Your task to perform on an android device: turn on improve location accuracy Image 0: 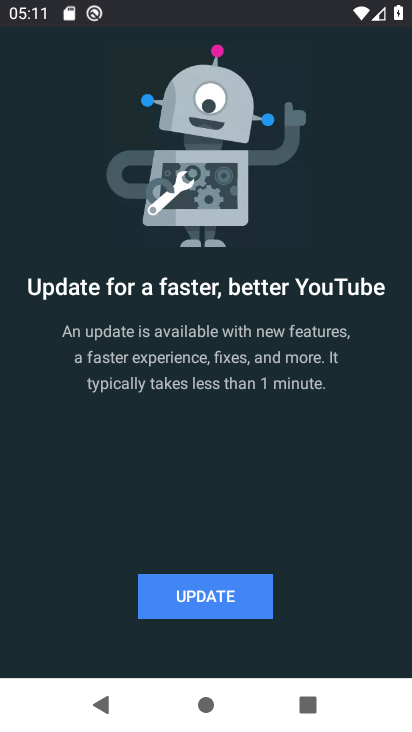
Step 0: press back button
Your task to perform on an android device: turn on improve location accuracy Image 1: 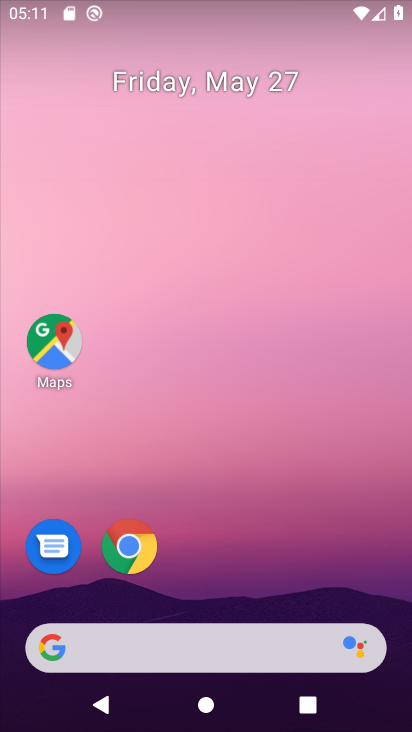
Step 1: drag from (294, 527) to (51, 4)
Your task to perform on an android device: turn on improve location accuracy Image 2: 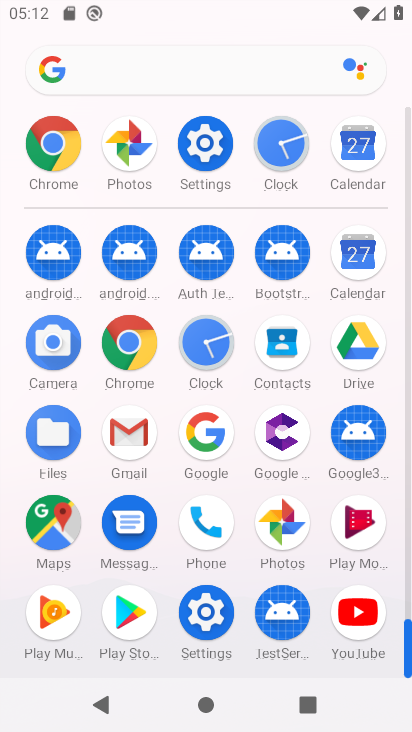
Step 2: click (202, 606)
Your task to perform on an android device: turn on improve location accuracy Image 3: 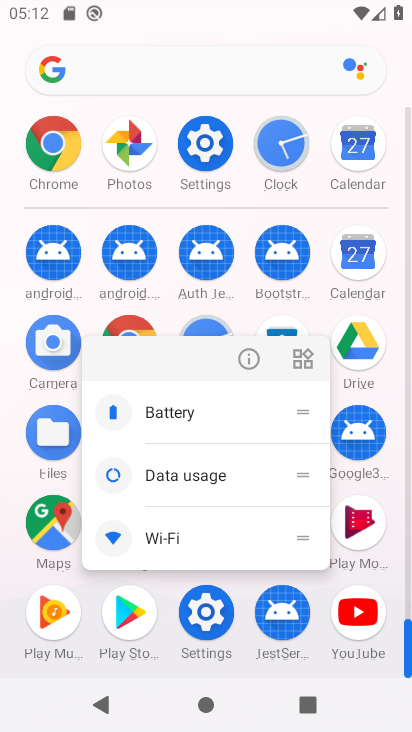
Step 3: click (202, 606)
Your task to perform on an android device: turn on improve location accuracy Image 4: 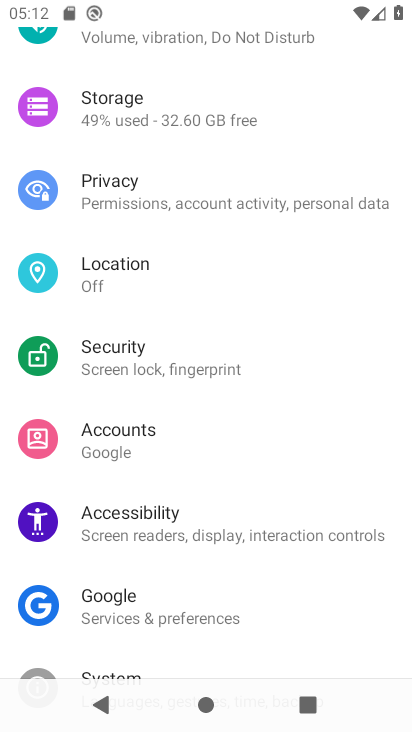
Step 4: drag from (251, 481) to (231, 106)
Your task to perform on an android device: turn on improve location accuracy Image 5: 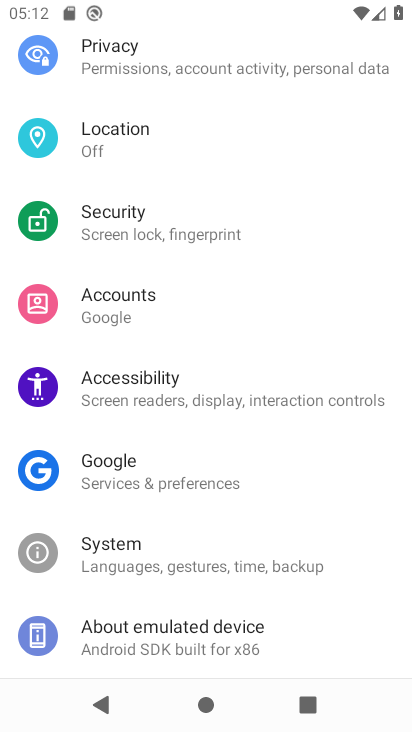
Step 5: drag from (181, 198) to (194, 423)
Your task to perform on an android device: turn on improve location accuracy Image 6: 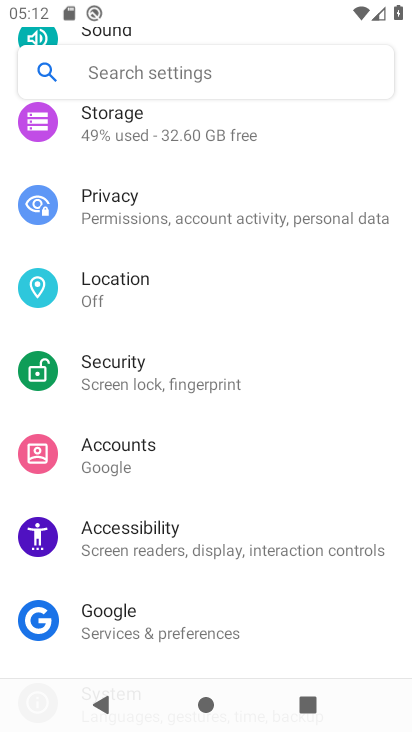
Step 6: click (128, 267)
Your task to perform on an android device: turn on improve location accuracy Image 7: 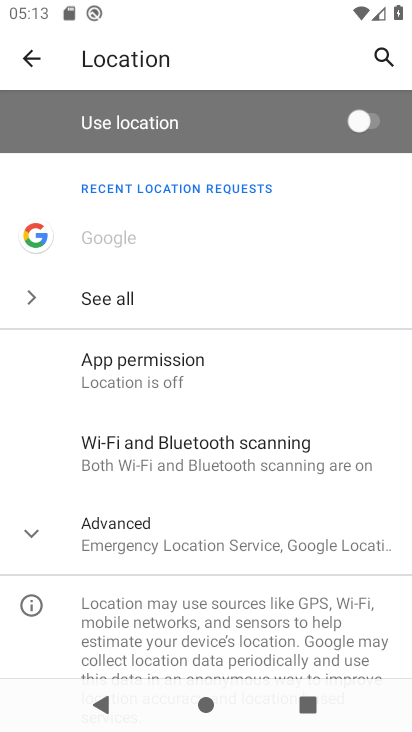
Step 7: click (47, 539)
Your task to perform on an android device: turn on improve location accuracy Image 8: 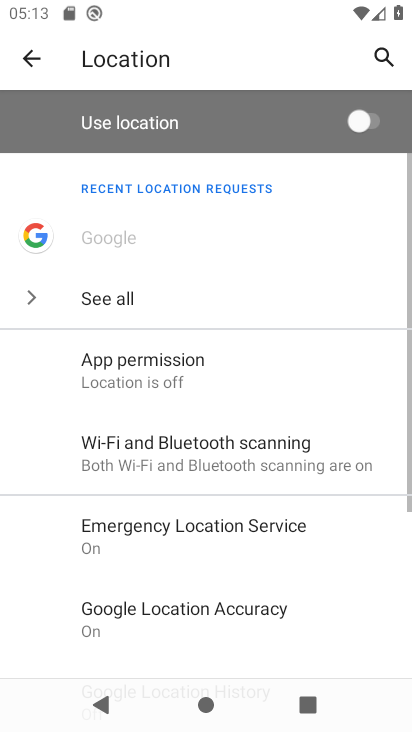
Step 8: drag from (300, 560) to (306, 209)
Your task to perform on an android device: turn on improve location accuracy Image 9: 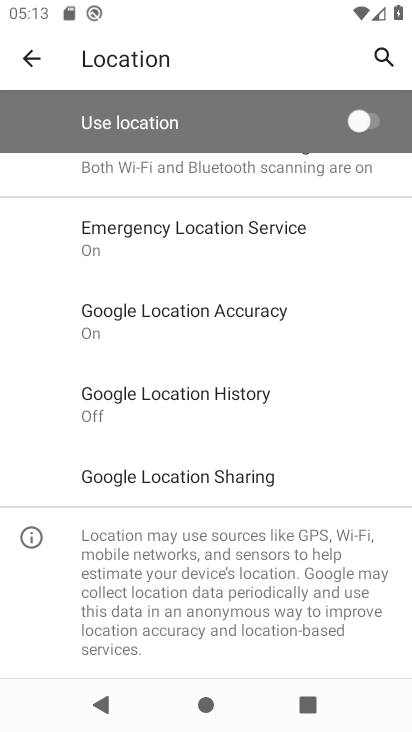
Step 9: drag from (274, 558) to (272, 234)
Your task to perform on an android device: turn on improve location accuracy Image 10: 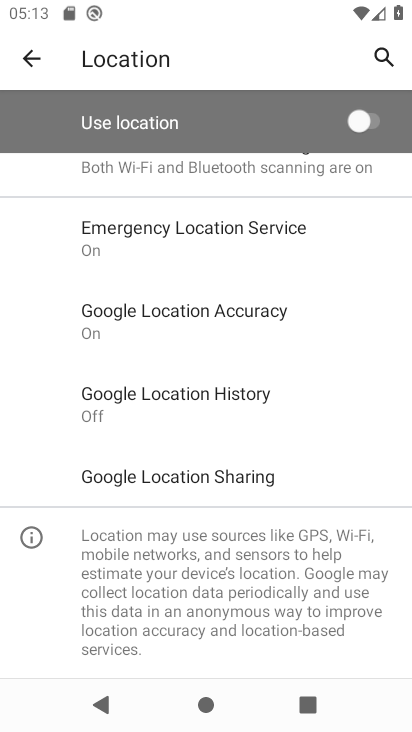
Step 10: drag from (284, 218) to (285, 632)
Your task to perform on an android device: turn on improve location accuracy Image 11: 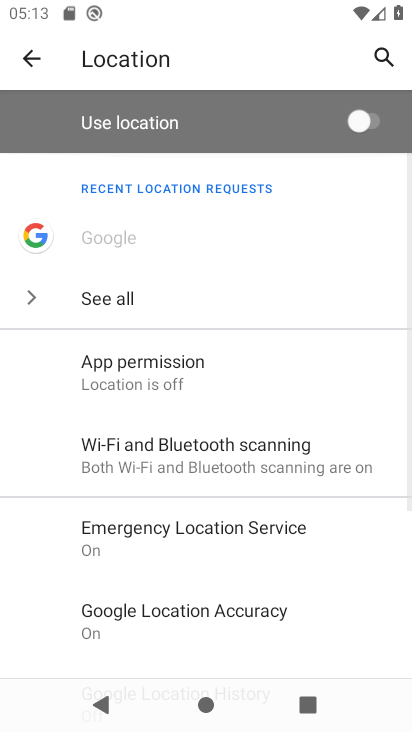
Step 11: drag from (250, 275) to (278, 543)
Your task to perform on an android device: turn on improve location accuracy Image 12: 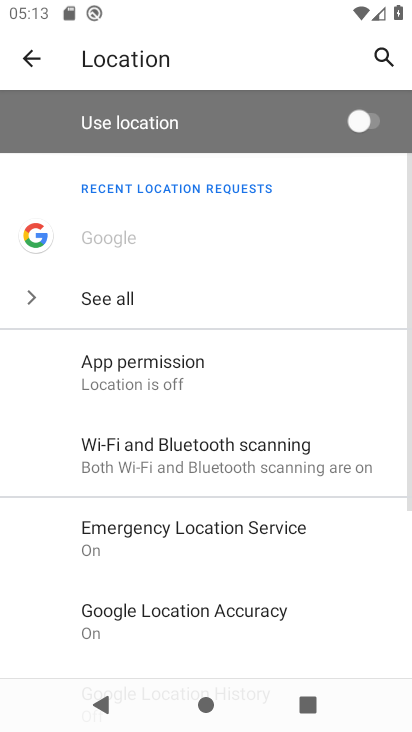
Step 12: drag from (304, 599) to (308, 257)
Your task to perform on an android device: turn on improve location accuracy Image 13: 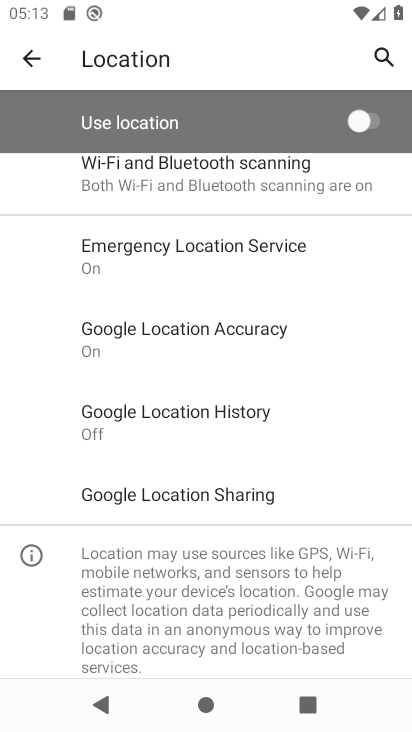
Step 13: click (277, 304)
Your task to perform on an android device: turn on improve location accuracy Image 14: 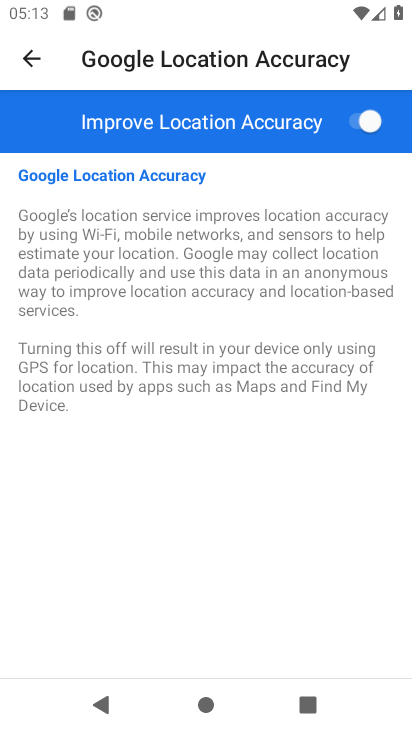
Step 14: task complete